Your task to perform on an android device: turn off translation in the chrome app Image 0: 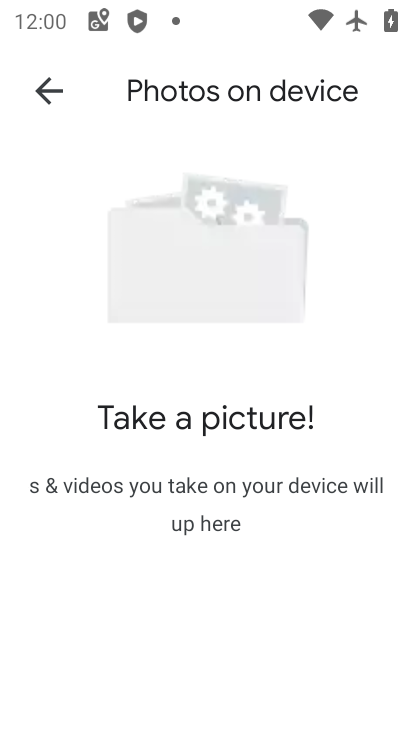
Step 0: click (168, 491)
Your task to perform on an android device: turn off translation in the chrome app Image 1: 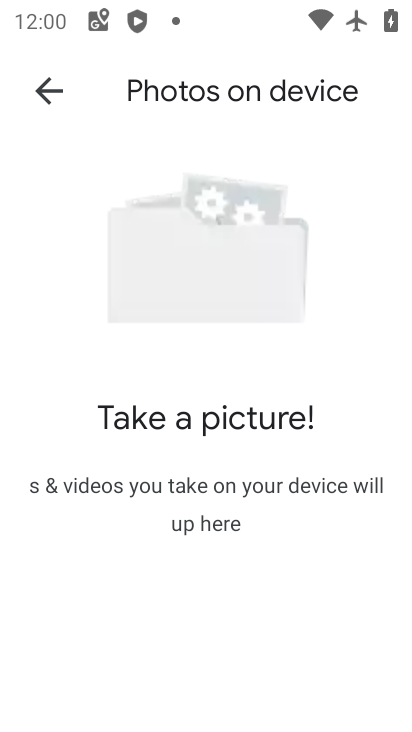
Step 1: press home button
Your task to perform on an android device: turn off translation in the chrome app Image 2: 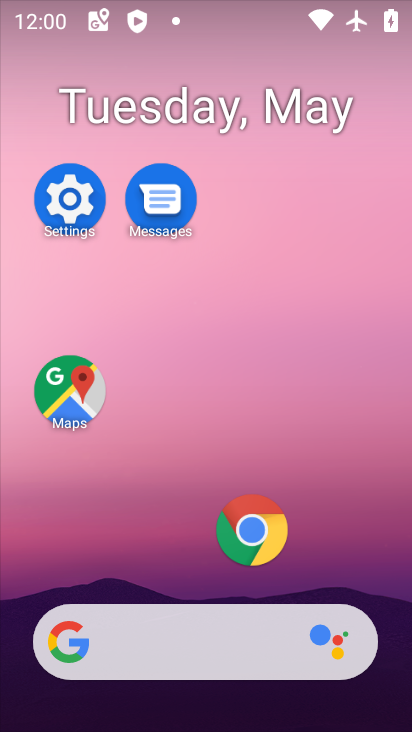
Step 2: drag from (183, 528) to (276, 110)
Your task to perform on an android device: turn off translation in the chrome app Image 3: 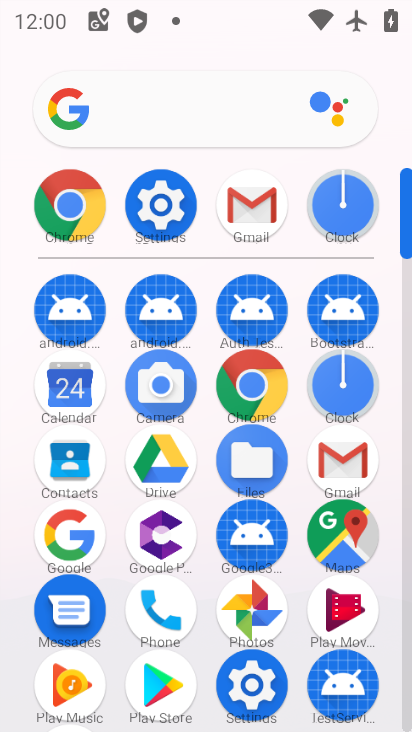
Step 3: click (260, 387)
Your task to perform on an android device: turn off translation in the chrome app Image 4: 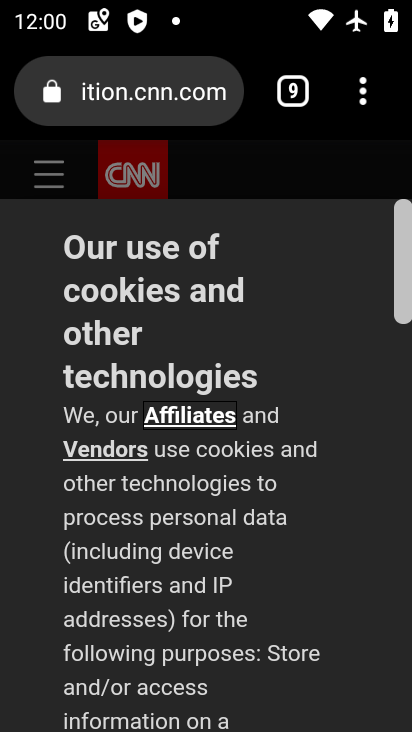
Step 4: drag from (192, 666) to (294, 128)
Your task to perform on an android device: turn off translation in the chrome app Image 5: 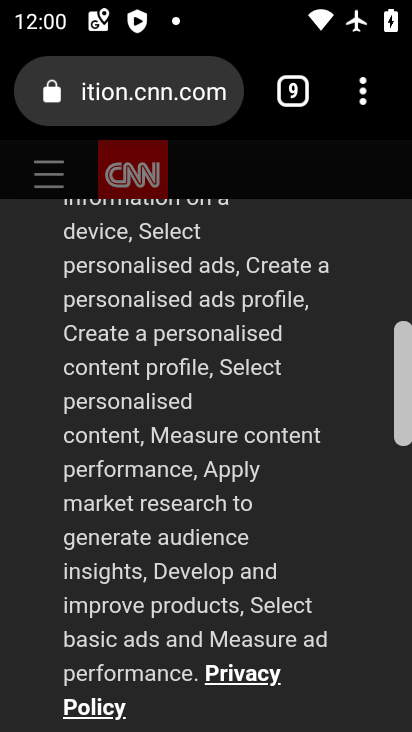
Step 5: press back button
Your task to perform on an android device: turn off translation in the chrome app Image 6: 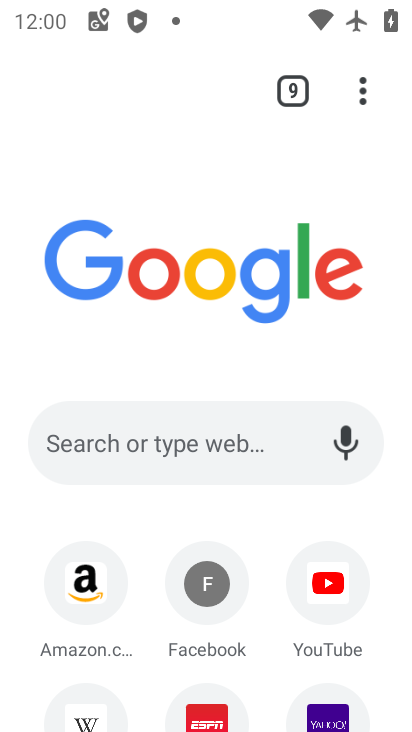
Step 6: click (364, 99)
Your task to perform on an android device: turn off translation in the chrome app Image 7: 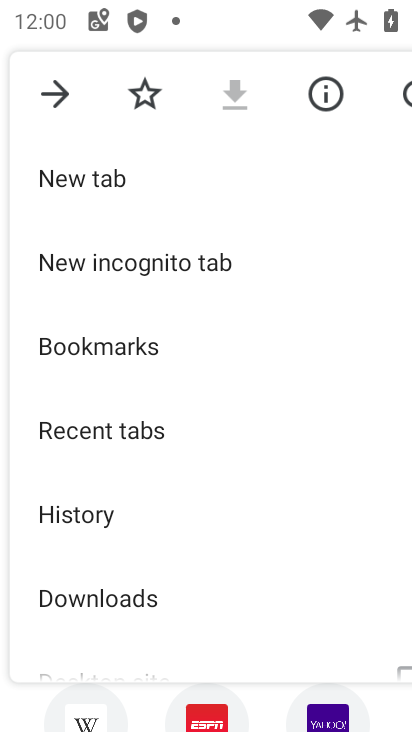
Step 7: drag from (187, 538) to (260, 147)
Your task to perform on an android device: turn off translation in the chrome app Image 8: 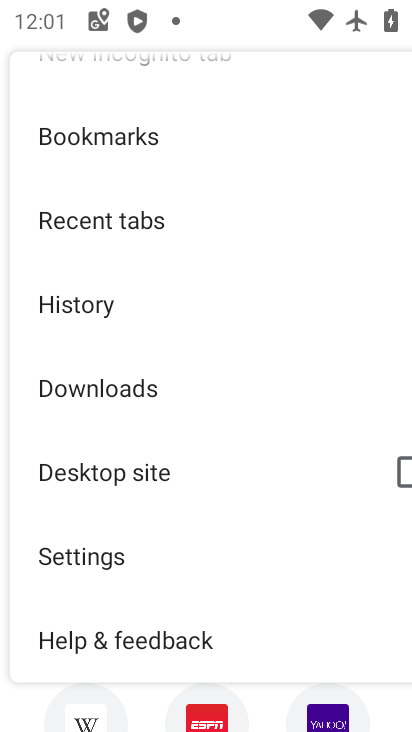
Step 8: click (137, 569)
Your task to perform on an android device: turn off translation in the chrome app Image 9: 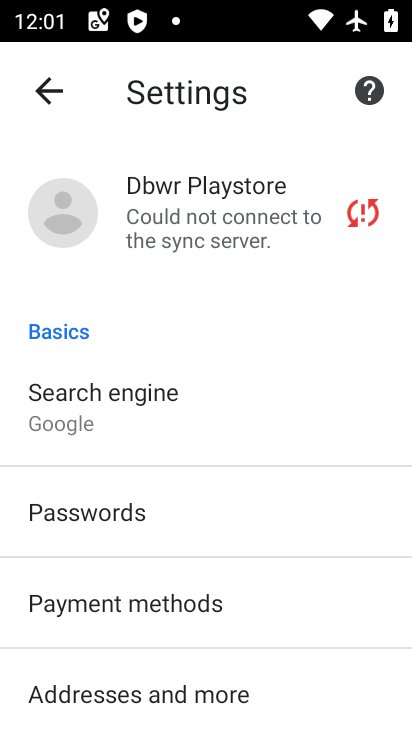
Step 9: drag from (214, 664) to (232, 186)
Your task to perform on an android device: turn off translation in the chrome app Image 10: 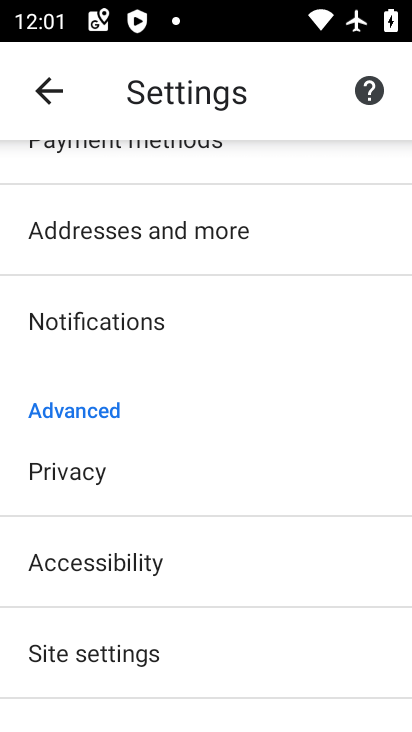
Step 10: drag from (131, 644) to (224, 185)
Your task to perform on an android device: turn off translation in the chrome app Image 11: 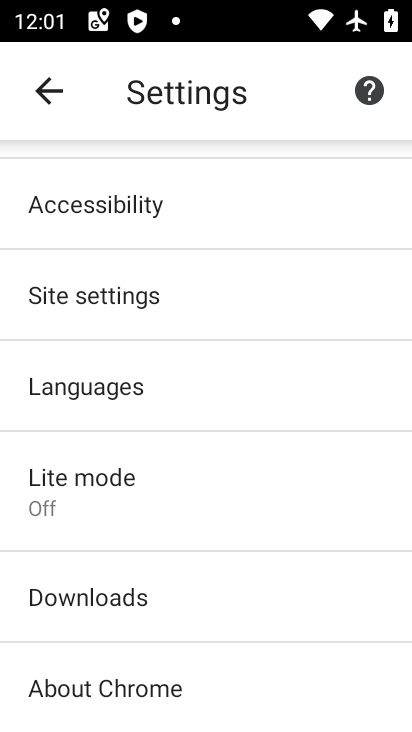
Step 11: click (115, 412)
Your task to perform on an android device: turn off translation in the chrome app Image 12: 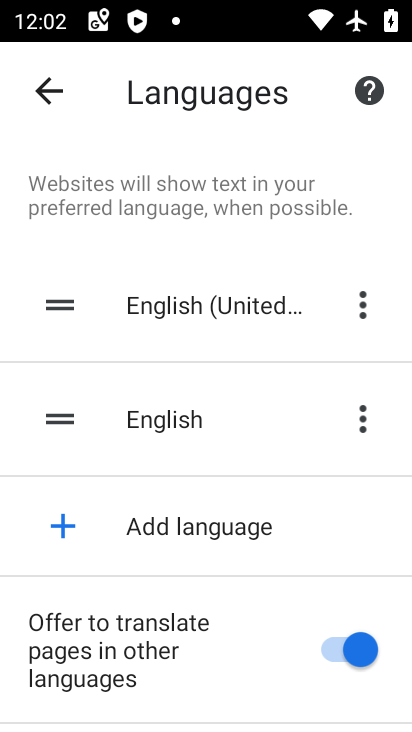
Step 12: click (352, 648)
Your task to perform on an android device: turn off translation in the chrome app Image 13: 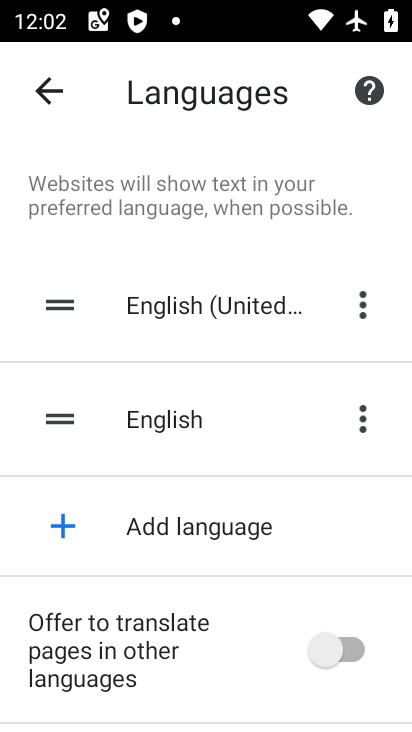
Step 13: task complete